Your task to perform on an android device: change the clock display to analog Image 0: 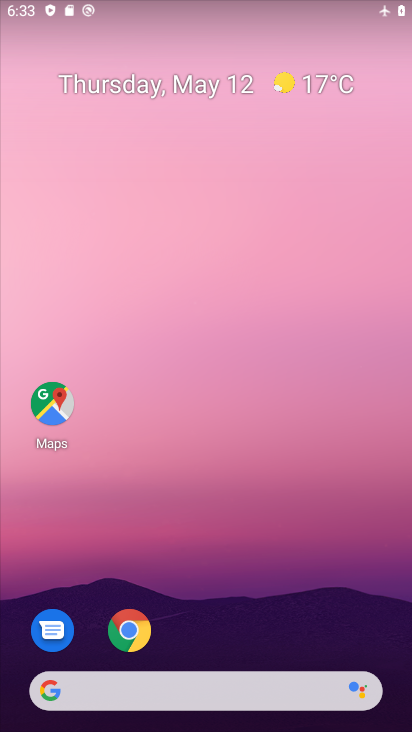
Step 0: drag from (356, 641) to (219, 153)
Your task to perform on an android device: change the clock display to analog Image 1: 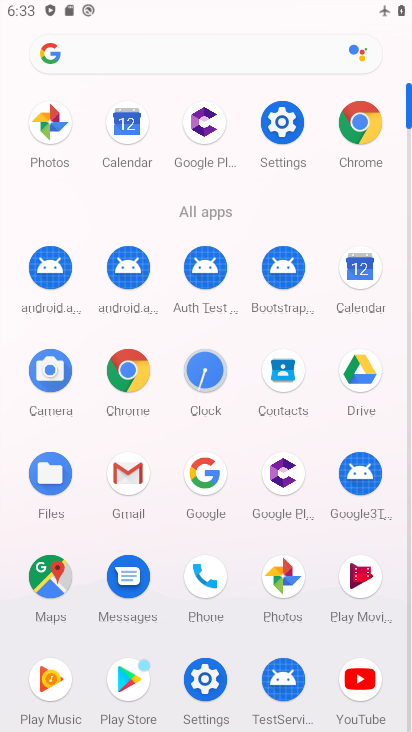
Step 1: click (199, 375)
Your task to perform on an android device: change the clock display to analog Image 2: 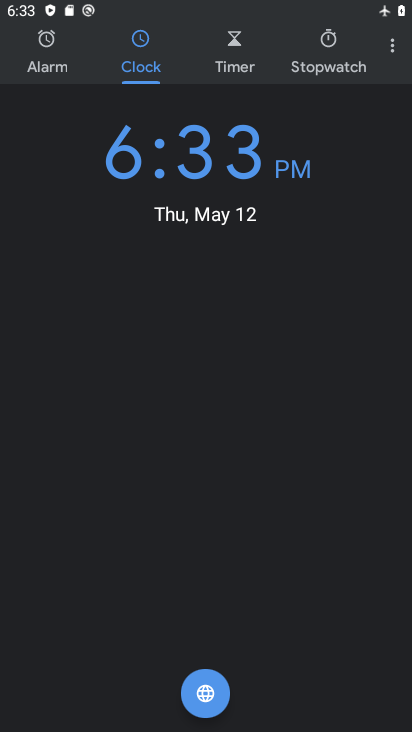
Step 2: click (384, 45)
Your task to perform on an android device: change the clock display to analog Image 3: 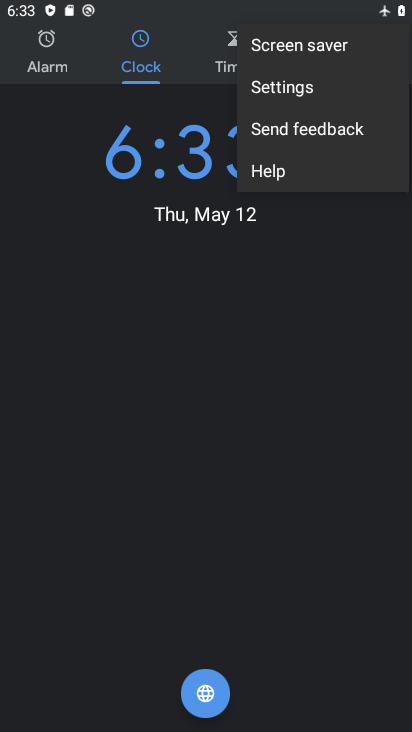
Step 3: click (285, 97)
Your task to perform on an android device: change the clock display to analog Image 4: 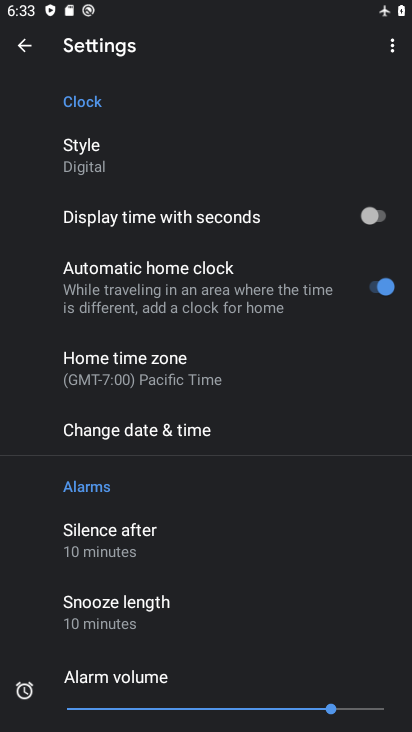
Step 4: click (119, 154)
Your task to perform on an android device: change the clock display to analog Image 5: 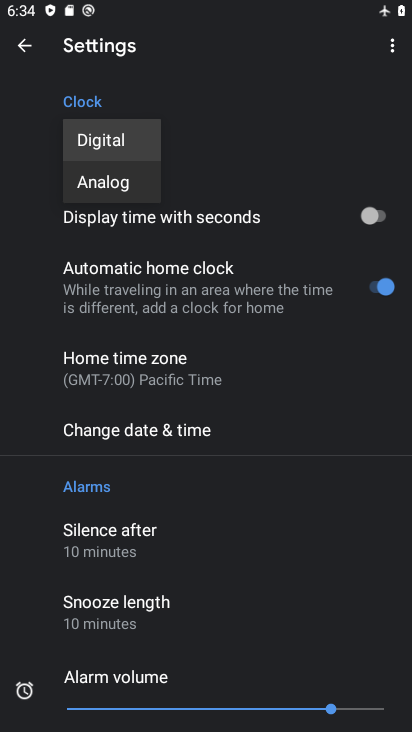
Step 5: click (103, 193)
Your task to perform on an android device: change the clock display to analog Image 6: 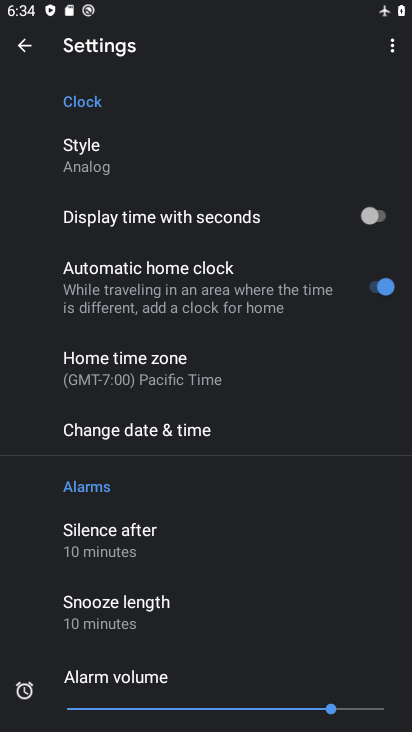
Step 6: task complete